Your task to perform on an android device: show emergency info Image 0: 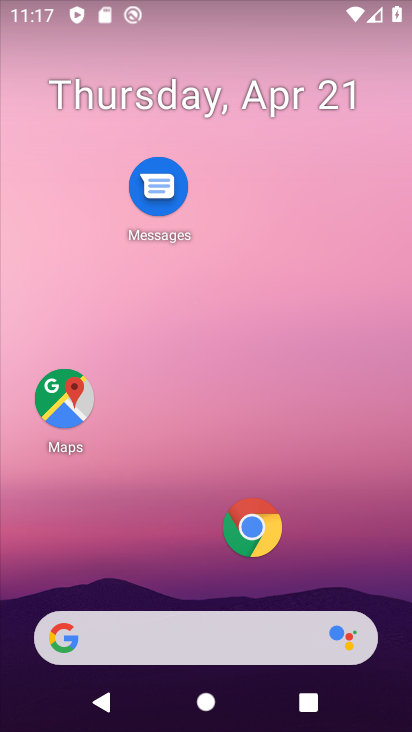
Step 0: drag from (185, 590) to (132, 3)
Your task to perform on an android device: show emergency info Image 1: 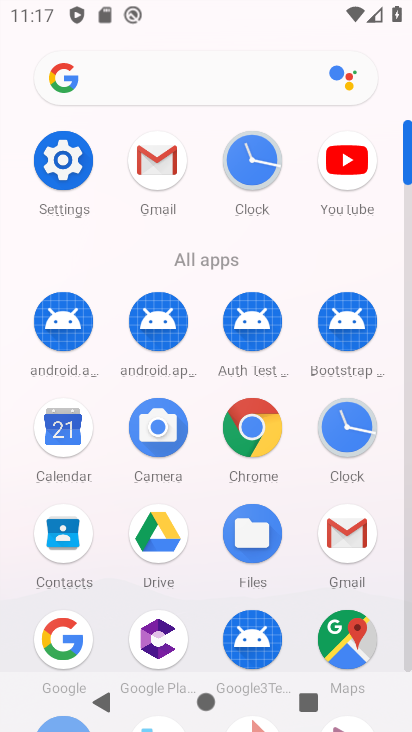
Step 1: click (60, 163)
Your task to perform on an android device: show emergency info Image 2: 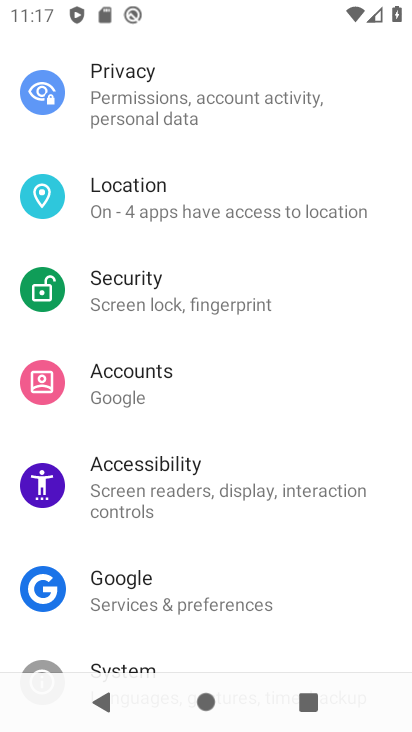
Step 2: drag from (156, 605) to (394, 473)
Your task to perform on an android device: show emergency info Image 3: 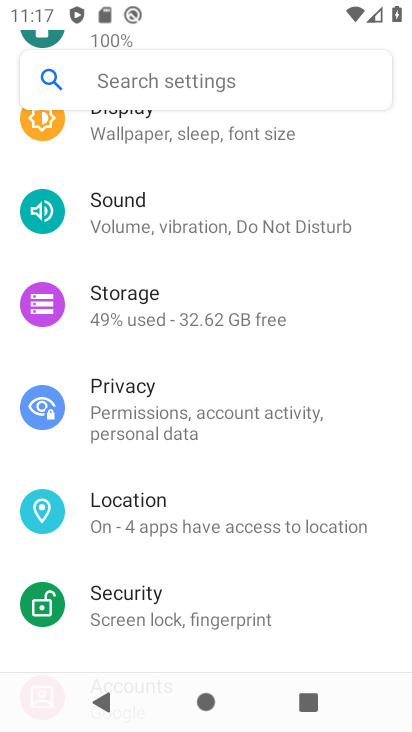
Step 3: click (180, 615)
Your task to perform on an android device: show emergency info Image 4: 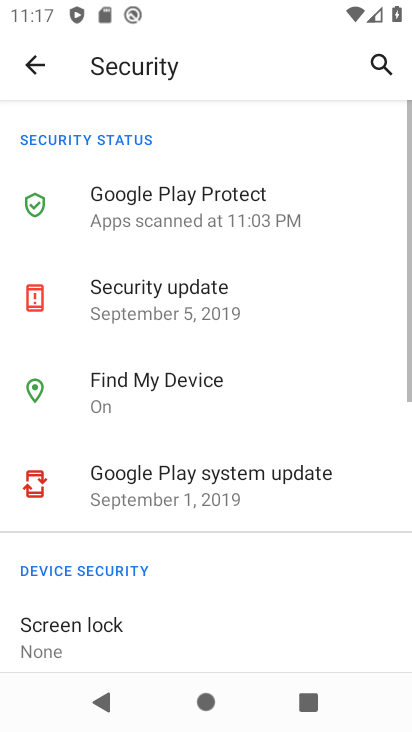
Step 4: click (41, 83)
Your task to perform on an android device: show emergency info Image 5: 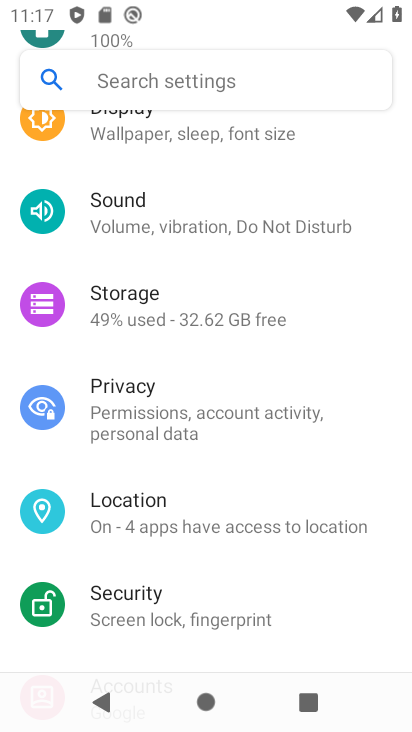
Step 5: drag from (204, 529) to (164, 3)
Your task to perform on an android device: show emergency info Image 6: 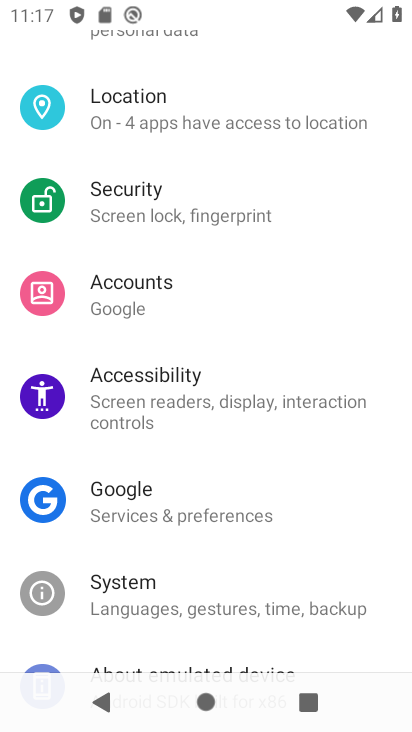
Step 6: drag from (197, 558) to (158, 28)
Your task to perform on an android device: show emergency info Image 7: 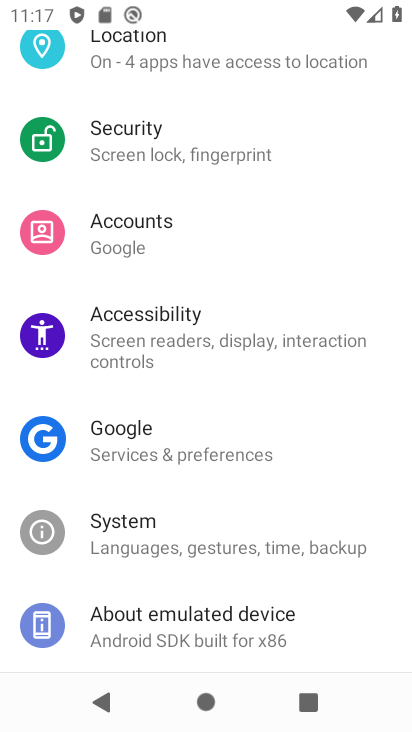
Step 7: click (116, 615)
Your task to perform on an android device: show emergency info Image 8: 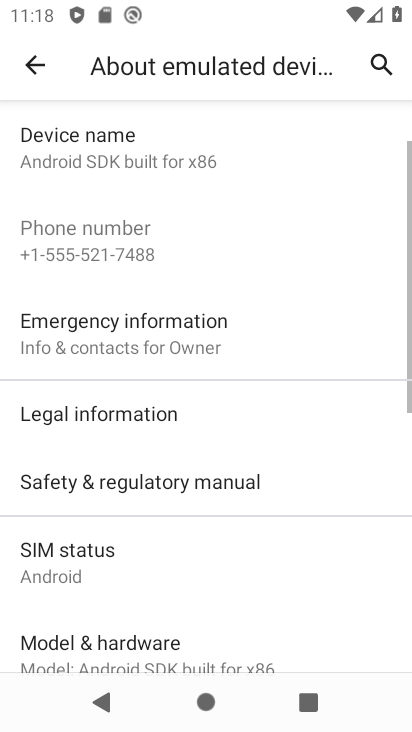
Step 8: click (161, 326)
Your task to perform on an android device: show emergency info Image 9: 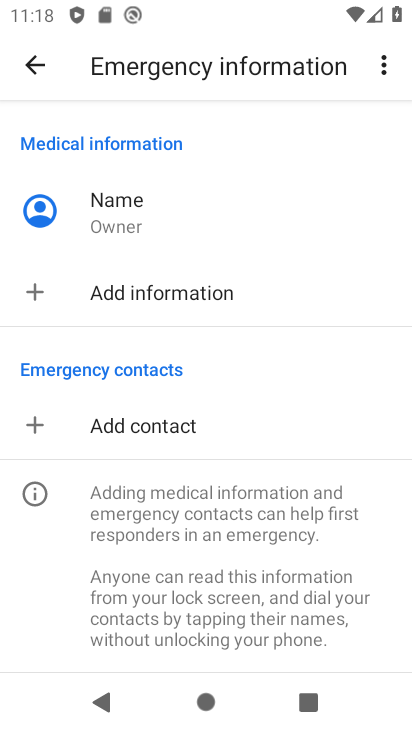
Step 9: task complete